Your task to perform on an android device: turn off wifi Image 0: 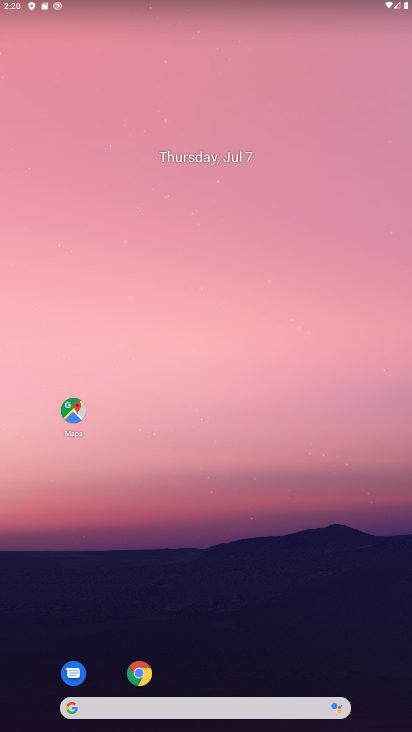
Step 0: drag from (247, 645) to (239, 6)
Your task to perform on an android device: turn off wifi Image 1: 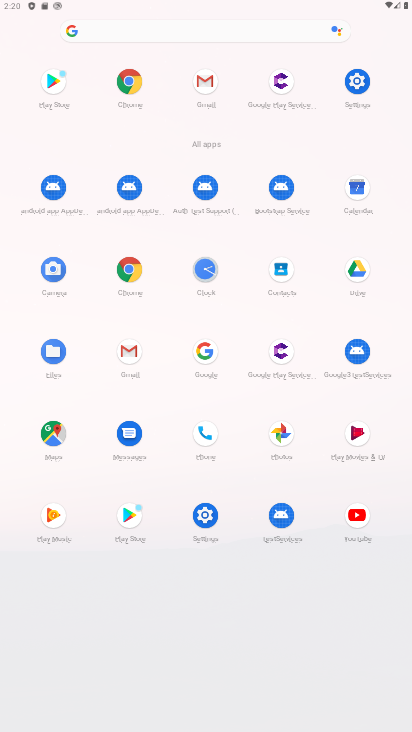
Step 1: click (345, 72)
Your task to perform on an android device: turn off wifi Image 2: 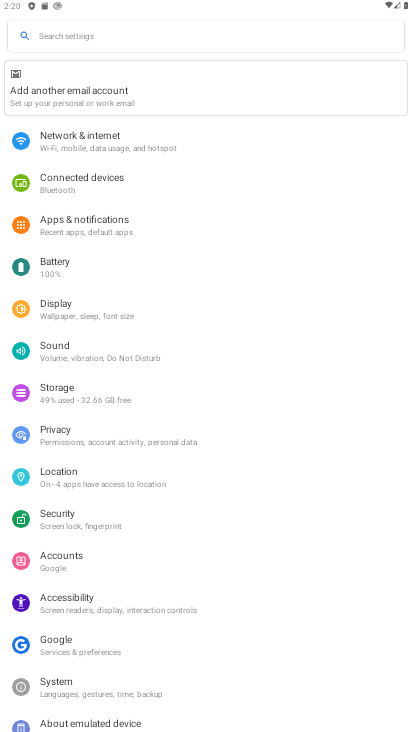
Step 2: click (97, 152)
Your task to perform on an android device: turn off wifi Image 3: 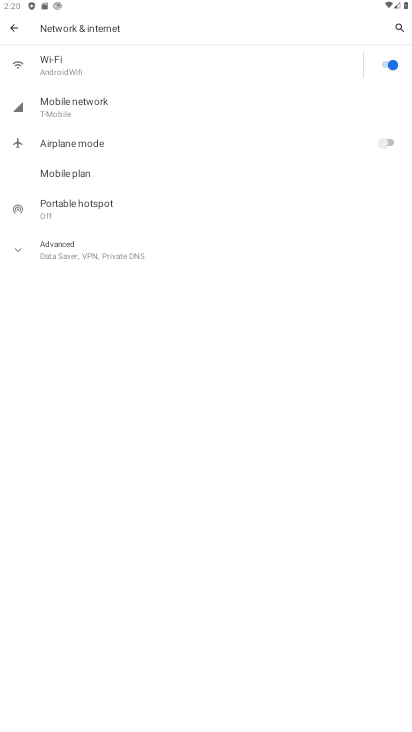
Step 3: click (53, 68)
Your task to perform on an android device: turn off wifi Image 4: 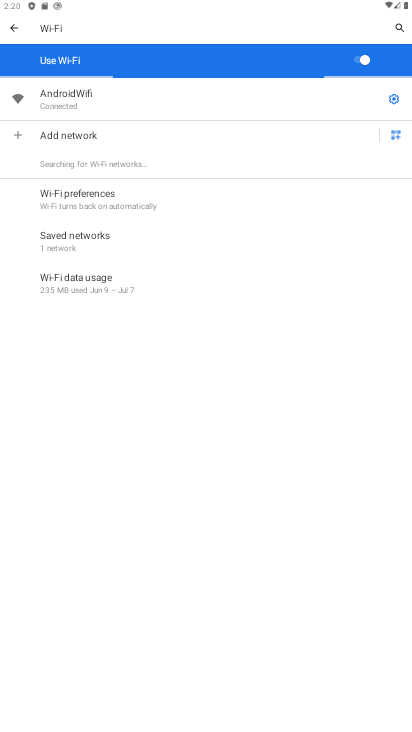
Step 4: task complete